Your task to perform on an android device: Go to display settings Image 0: 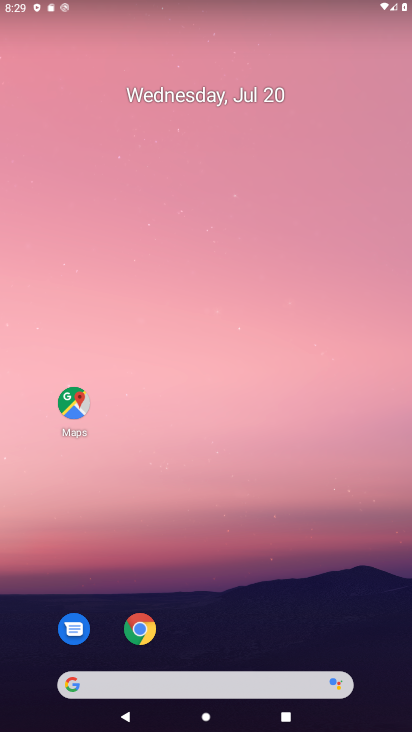
Step 0: drag from (183, 637) to (189, 184)
Your task to perform on an android device: Go to display settings Image 1: 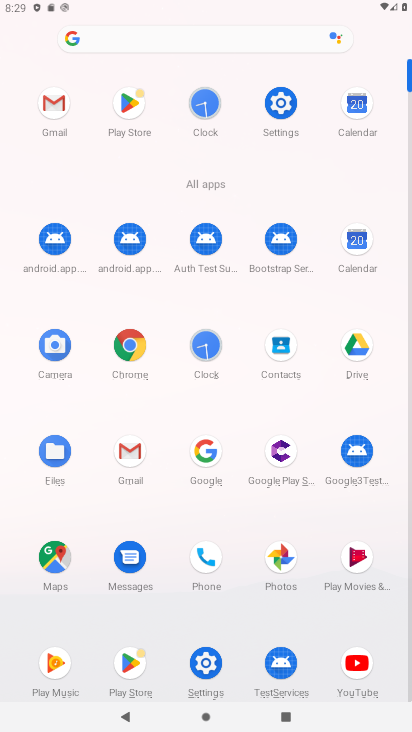
Step 1: click (286, 108)
Your task to perform on an android device: Go to display settings Image 2: 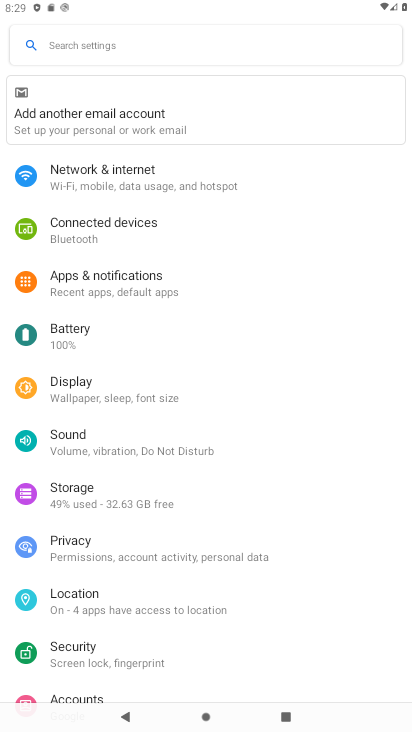
Step 2: click (121, 398)
Your task to perform on an android device: Go to display settings Image 3: 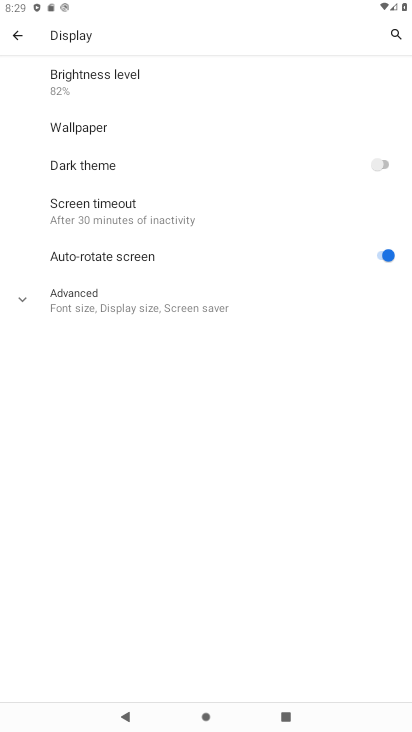
Step 3: task complete